Your task to perform on an android device: Go to calendar. Show me events next week Image 0: 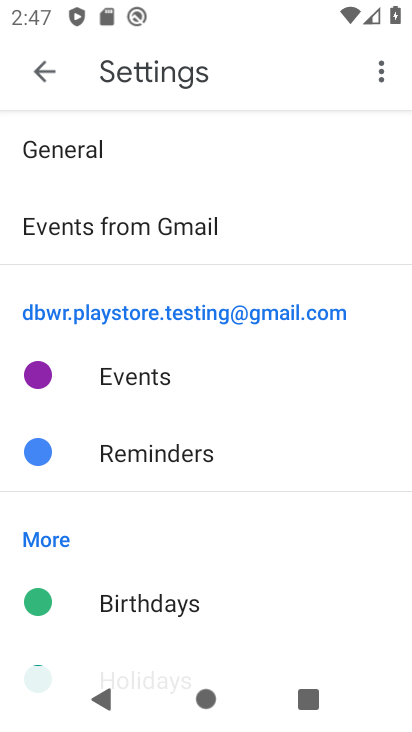
Step 0: press back button
Your task to perform on an android device: Go to calendar. Show me events next week Image 1: 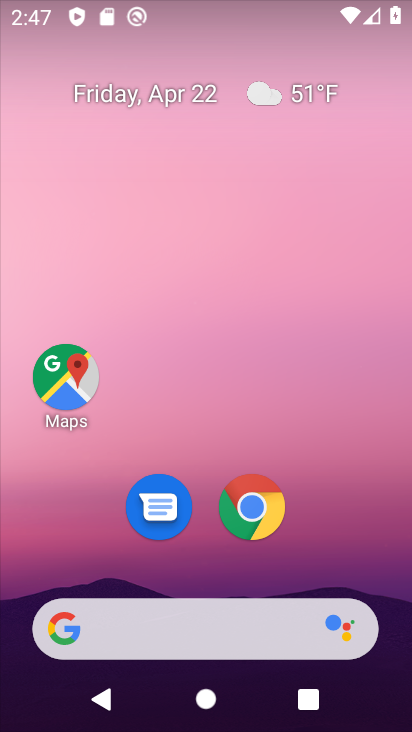
Step 1: drag from (205, 380) to (290, 4)
Your task to perform on an android device: Go to calendar. Show me events next week Image 2: 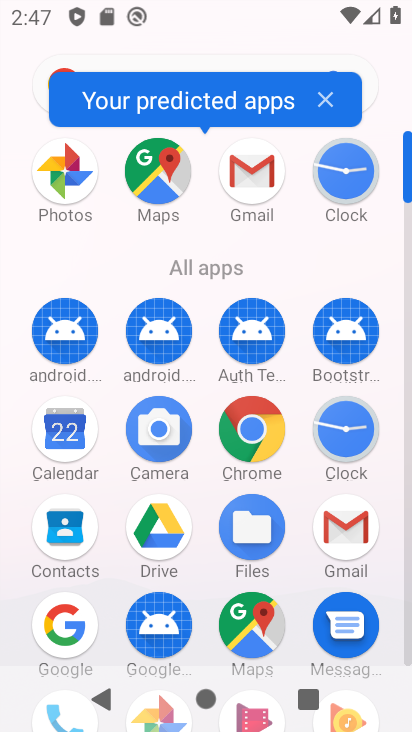
Step 2: click (58, 416)
Your task to perform on an android device: Go to calendar. Show me events next week Image 3: 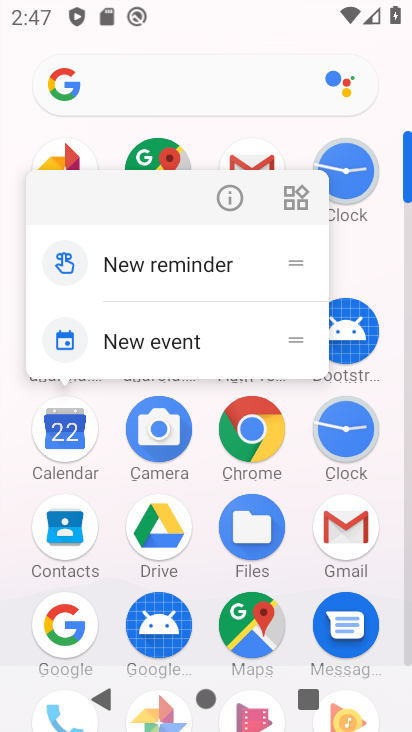
Step 3: click (54, 446)
Your task to perform on an android device: Go to calendar. Show me events next week Image 4: 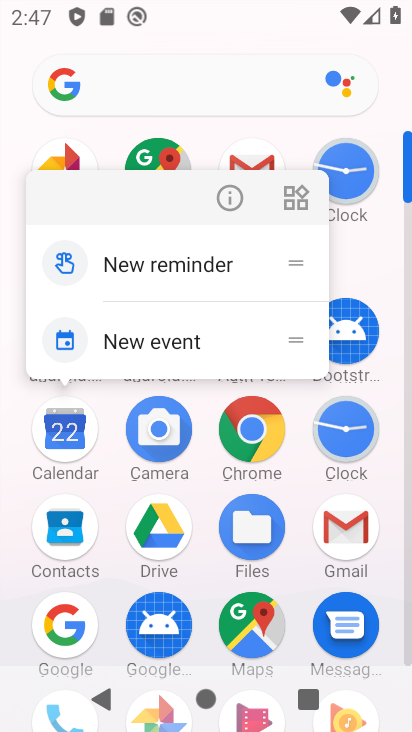
Step 4: click (60, 437)
Your task to perform on an android device: Go to calendar. Show me events next week Image 5: 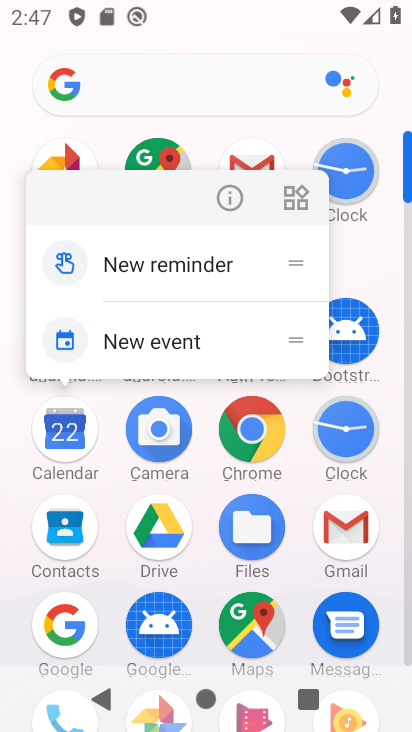
Step 5: click (70, 431)
Your task to perform on an android device: Go to calendar. Show me events next week Image 6: 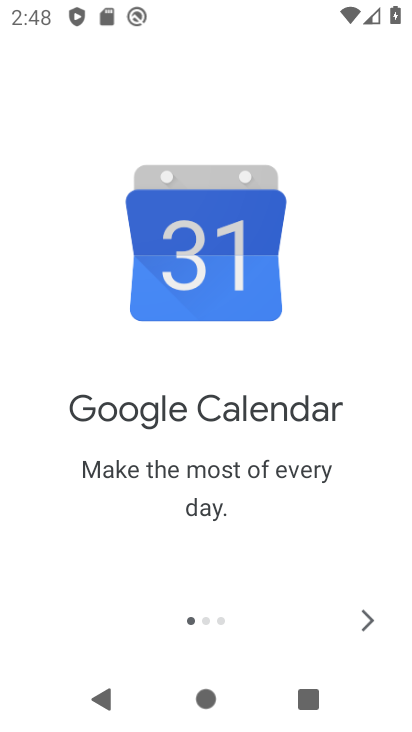
Step 6: click (370, 622)
Your task to perform on an android device: Go to calendar. Show me events next week Image 7: 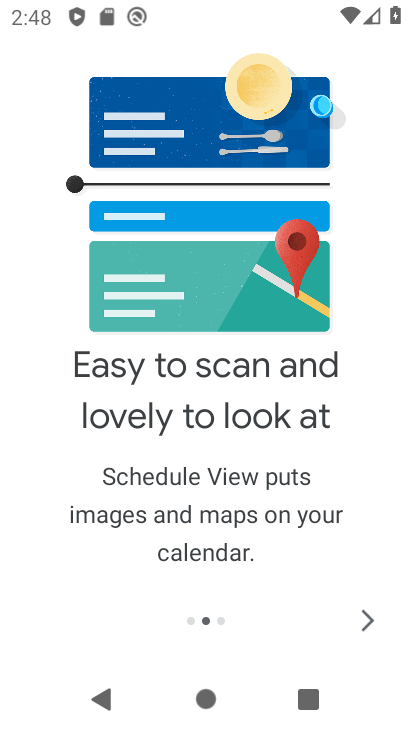
Step 7: click (370, 622)
Your task to perform on an android device: Go to calendar. Show me events next week Image 8: 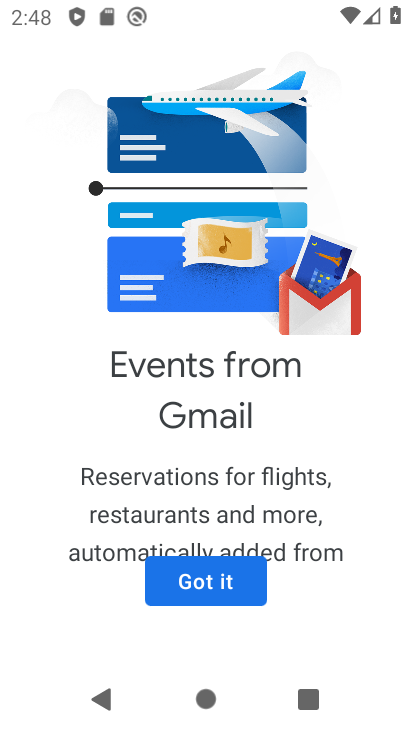
Step 8: click (206, 581)
Your task to perform on an android device: Go to calendar. Show me events next week Image 9: 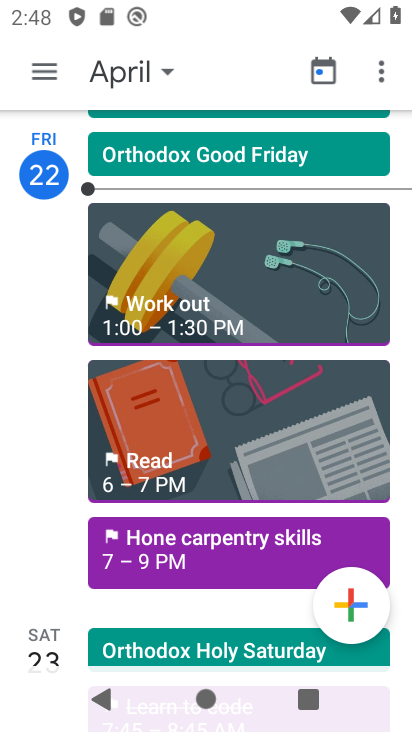
Step 9: drag from (230, 460) to (292, 149)
Your task to perform on an android device: Go to calendar. Show me events next week Image 10: 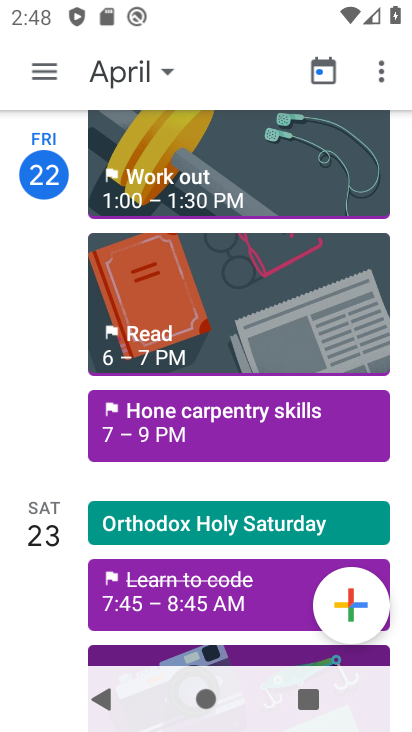
Step 10: click (147, 69)
Your task to perform on an android device: Go to calendar. Show me events next week Image 11: 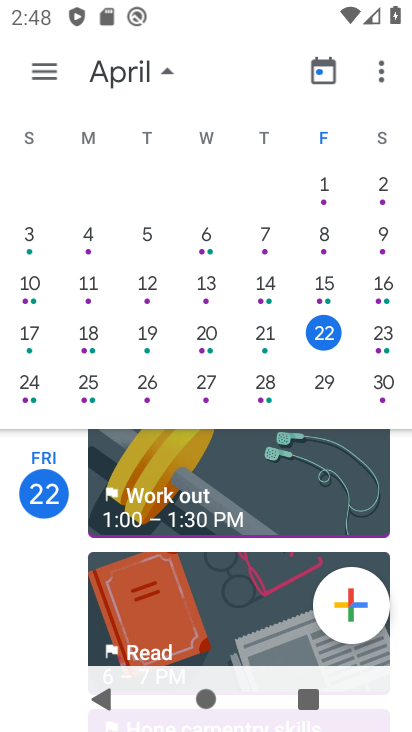
Step 11: click (88, 381)
Your task to perform on an android device: Go to calendar. Show me events next week Image 12: 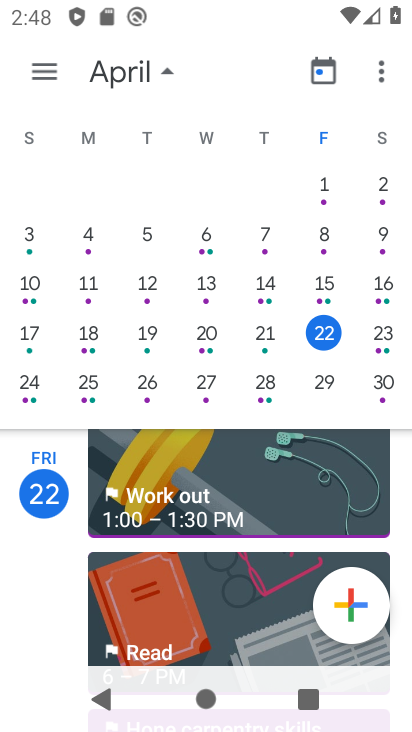
Step 12: click (86, 389)
Your task to perform on an android device: Go to calendar. Show me events next week Image 13: 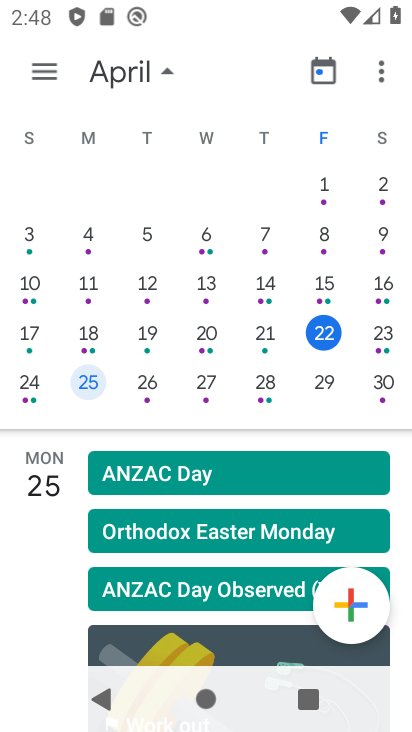
Step 13: click (89, 380)
Your task to perform on an android device: Go to calendar. Show me events next week Image 14: 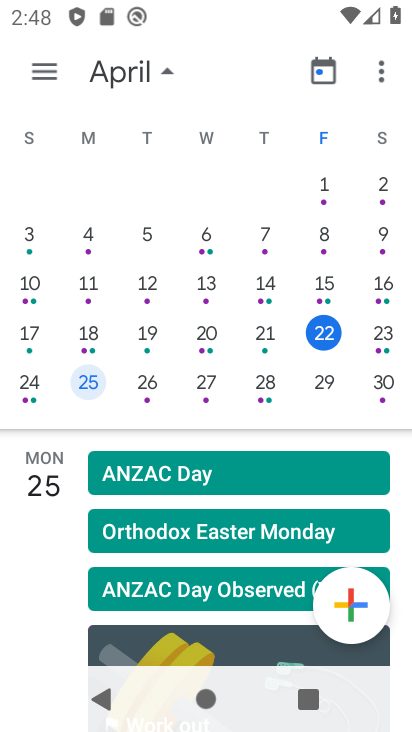
Step 14: task complete